Your task to perform on an android device: change text size in settings app Image 0: 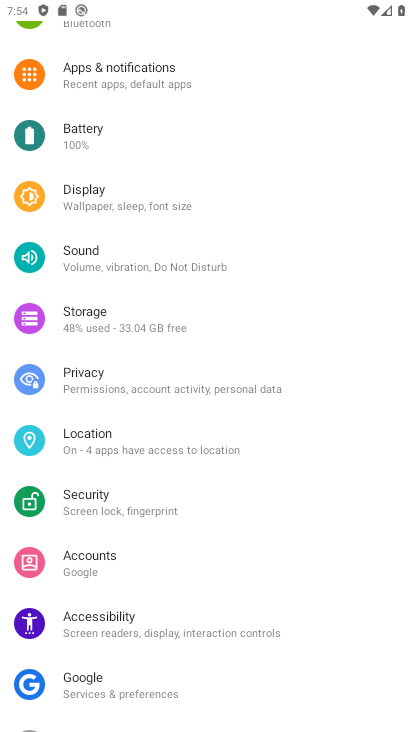
Step 0: press home button
Your task to perform on an android device: change text size in settings app Image 1: 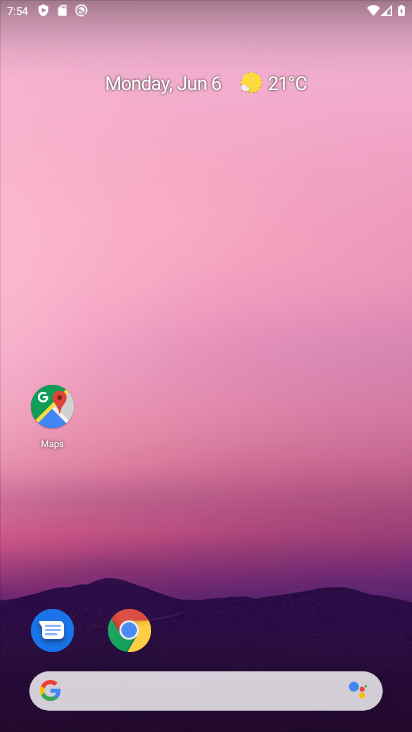
Step 1: drag from (259, 628) to (180, 104)
Your task to perform on an android device: change text size in settings app Image 2: 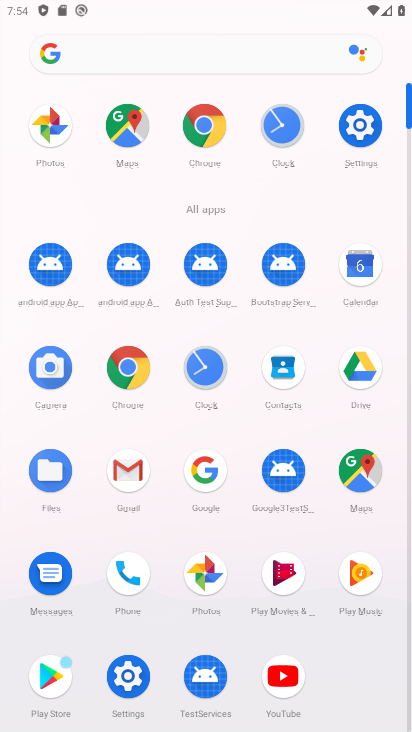
Step 2: click (361, 123)
Your task to perform on an android device: change text size in settings app Image 3: 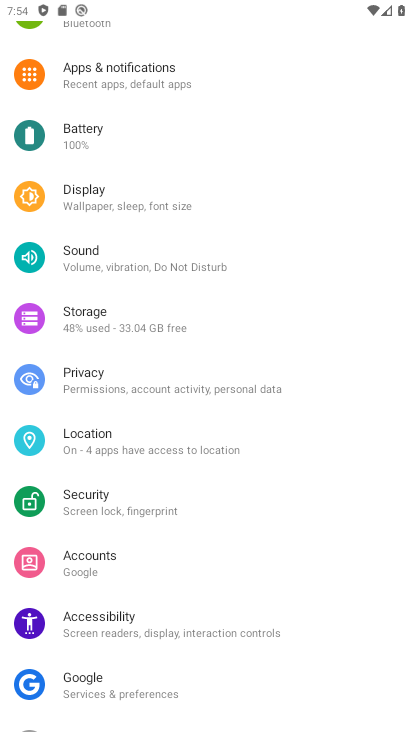
Step 3: click (132, 610)
Your task to perform on an android device: change text size in settings app Image 4: 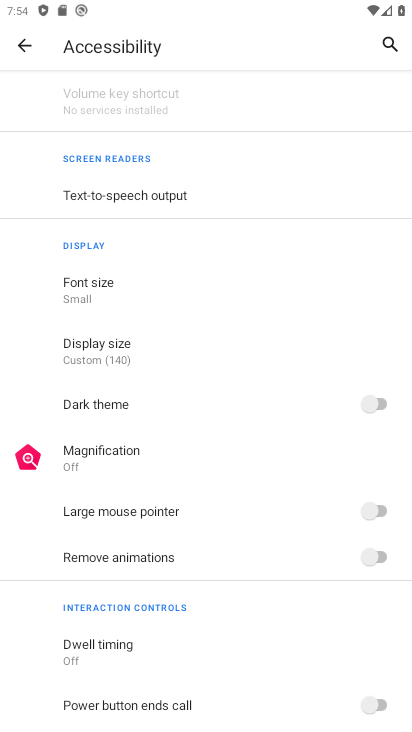
Step 4: click (108, 278)
Your task to perform on an android device: change text size in settings app Image 5: 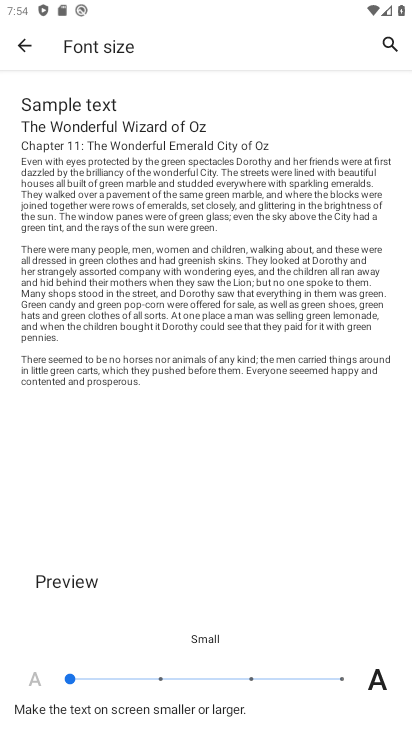
Step 5: click (160, 680)
Your task to perform on an android device: change text size in settings app Image 6: 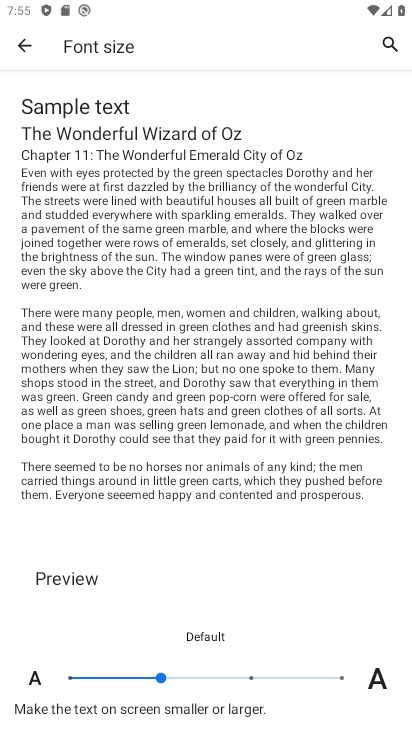
Step 6: task complete